Your task to perform on an android device: Go to calendar. Show me events next week Image 0: 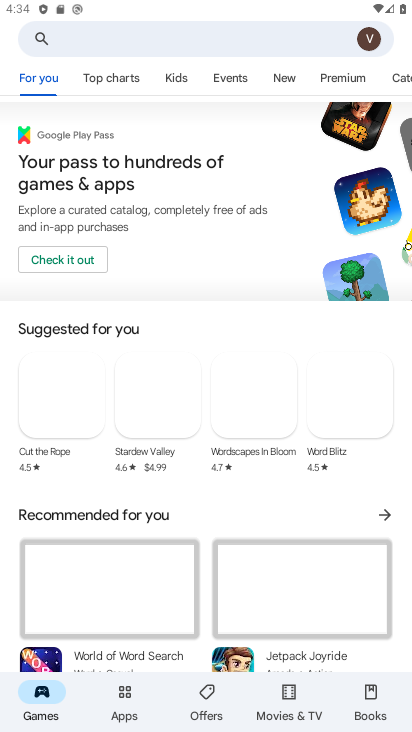
Step 0: press home button
Your task to perform on an android device: Go to calendar. Show me events next week Image 1: 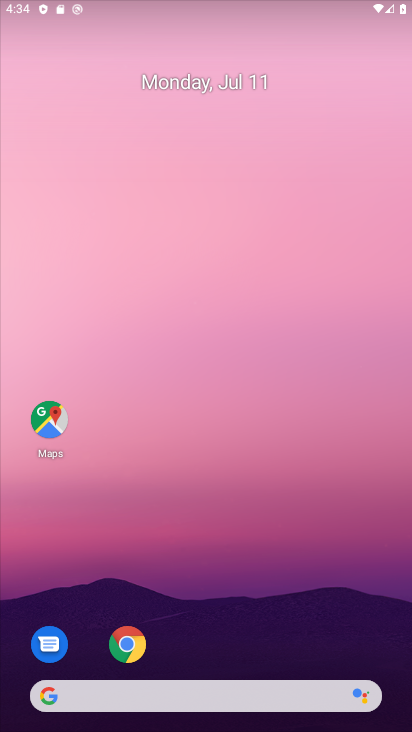
Step 1: drag from (270, 594) to (269, 131)
Your task to perform on an android device: Go to calendar. Show me events next week Image 2: 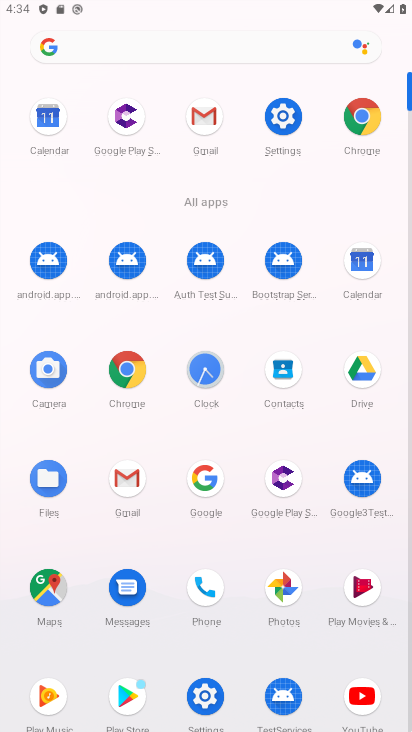
Step 2: click (362, 268)
Your task to perform on an android device: Go to calendar. Show me events next week Image 3: 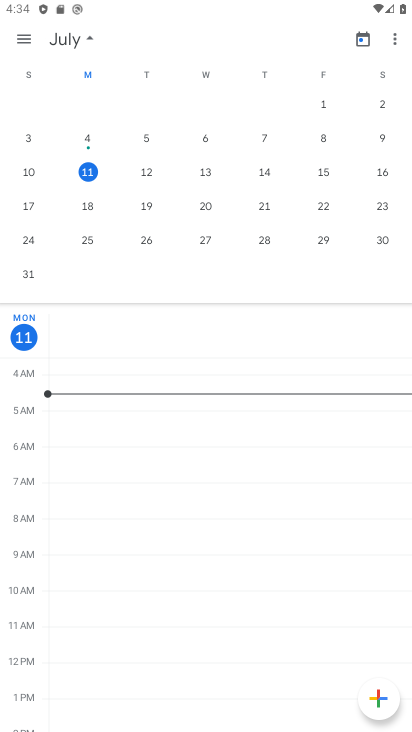
Step 3: click (147, 206)
Your task to perform on an android device: Go to calendar. Show me events next week Image 4: 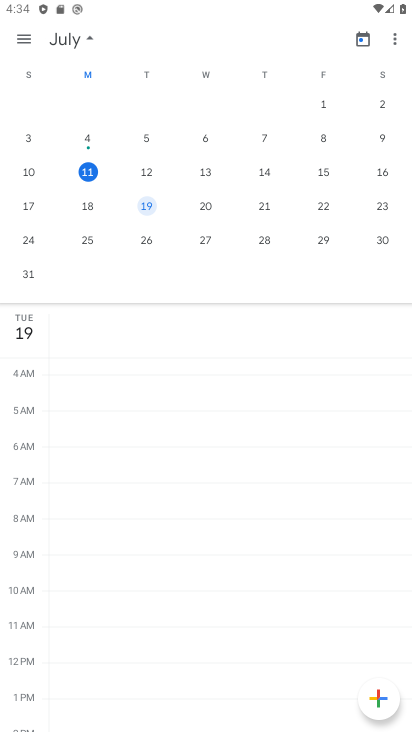
Step 4: click (31, 42)
Your task to perform on an android device: Go to calendar. Show me events next week Image 5: 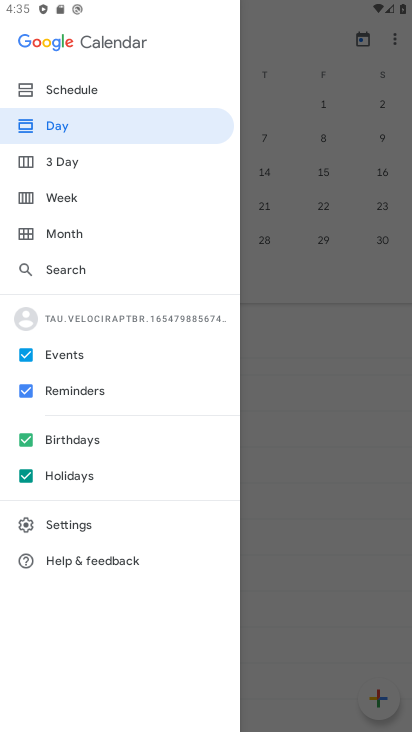
Step 5: click (67, 199)
Your task to perform on an android device: Go to calendar. Show me events next week Image 6: 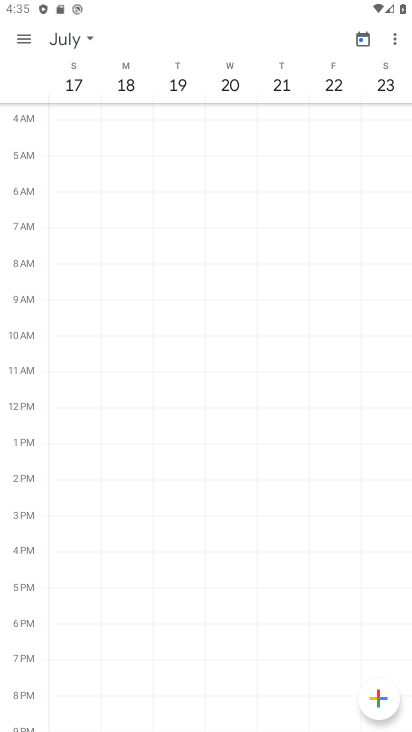
Step 6: task complete